Your task to perform on an android device: change the clock display to analog Image 0: 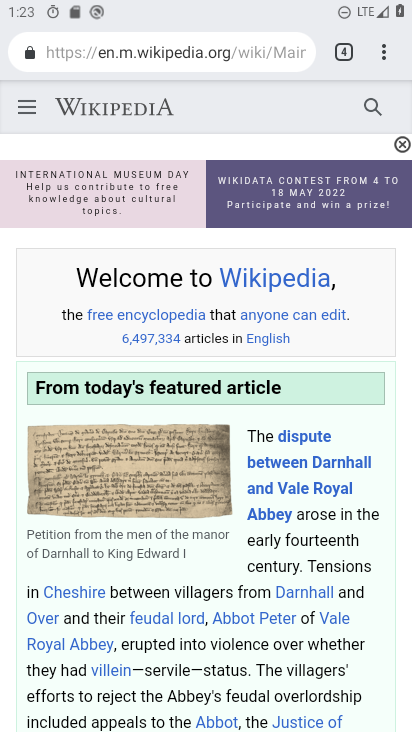
Step 0: drag from (332, 597) to (221, 158)
Your task to perform on an android device: change the clock display to analog Image 1: 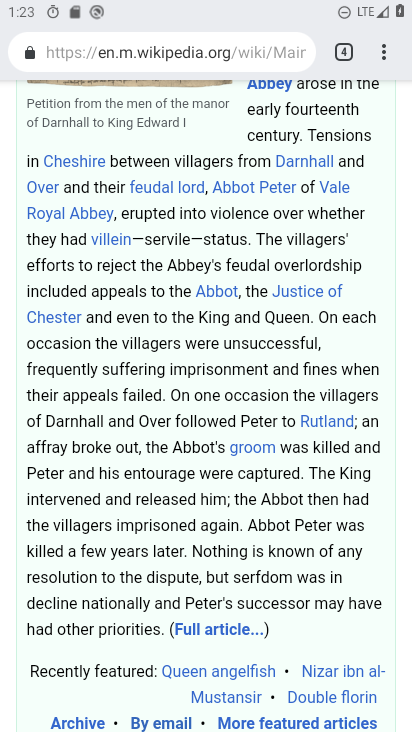
Step 1: press home button
Your task to perform on an android device: change the clock display to analog Image 2: 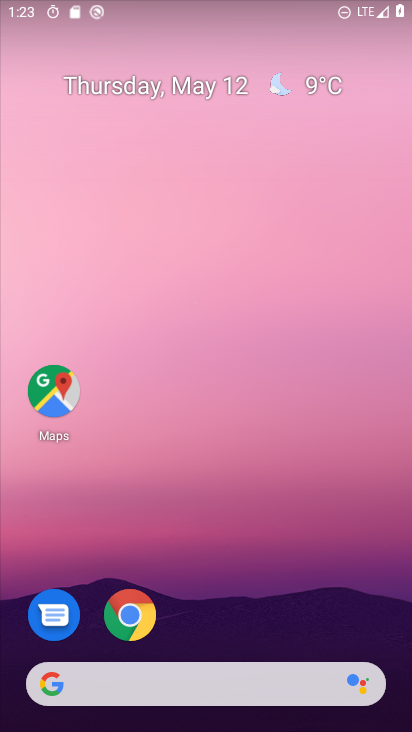
Step 2: drag from (313, 595) to (275, 129)
Your task to perform on an android device: change the clock display to analog Image 3: 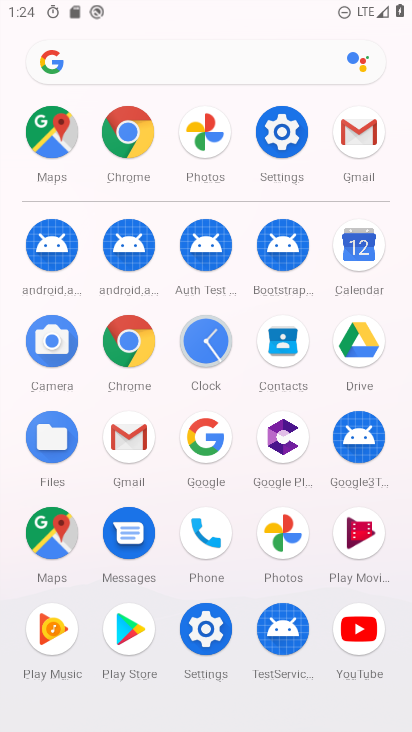
Step 3: click (217, 346)
Your task to perform on an android device: change the clock display to analog Image 4: 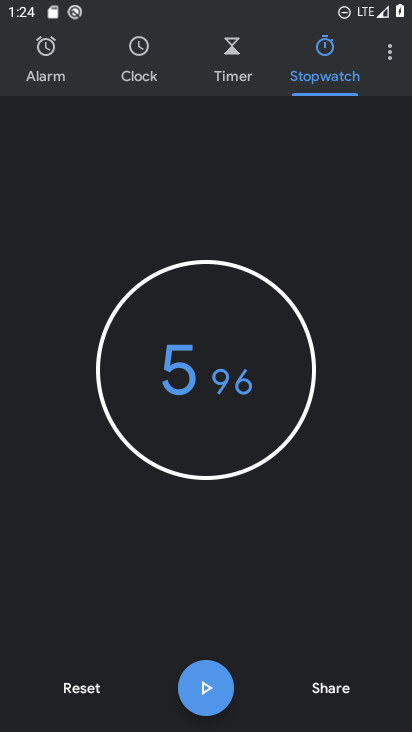
Step 4: drag from (386, 55) to (269, 98)
Your task to perform on an android device: change the clock display to analog Image 5: 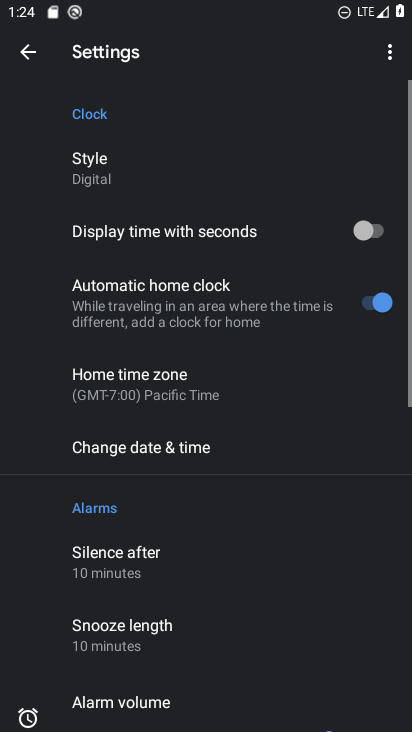
Step 5: click (126, 181)
Your task to perform on an android device: change the clock display to analog Image 6: 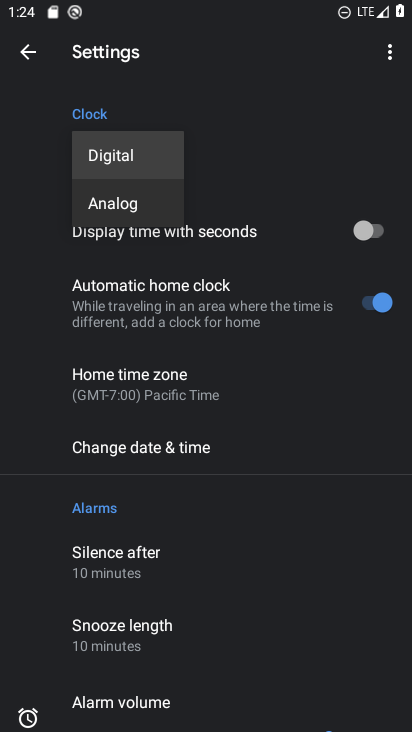
Step 6: click (149, 203)
Your task to perform on an android device: change the clock display to analog Image 7: 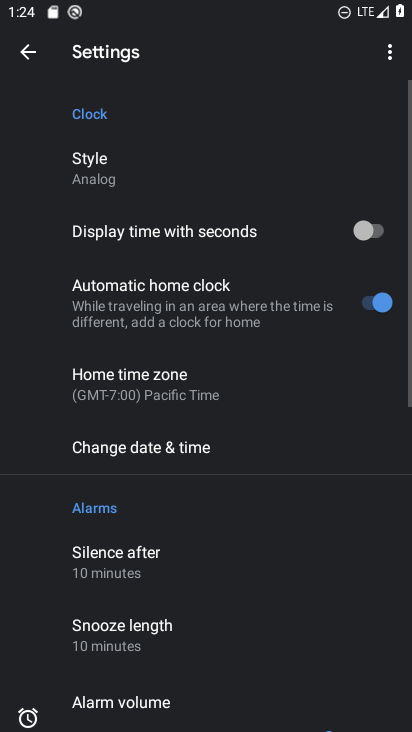
Step 7: task complete